Your task to perform on an android device: Go to calendar. Show me events next week Image 0: 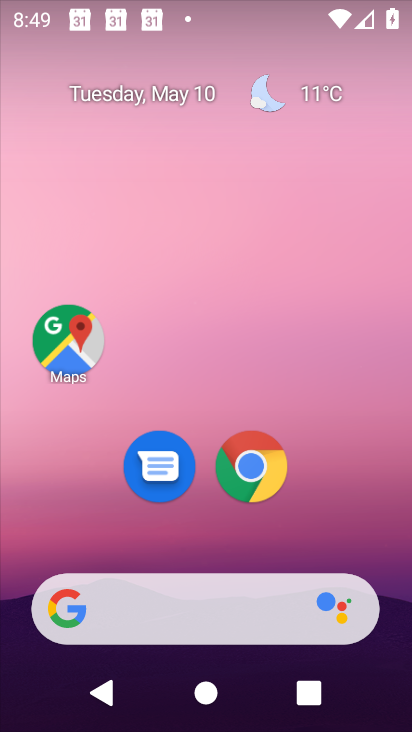
Step 0: drag from (212, 496) to (315, 64)
Your task to perform on an android device: Go to calendar. Show me events next week Image 1: 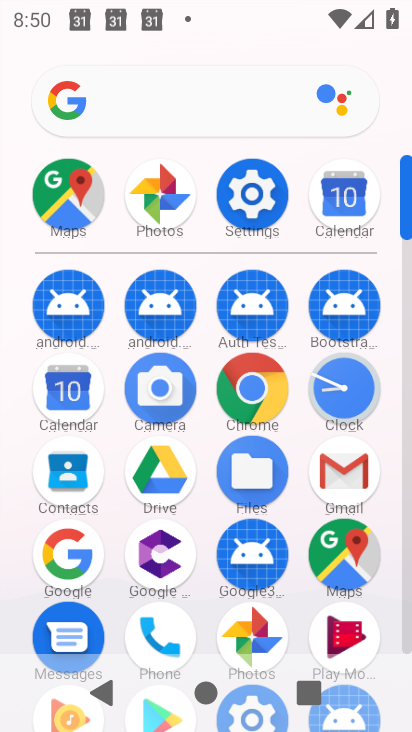
Step 1: click (71, 412)
Your task to perform on an android device: Go to calendar. Show me events next week Image 2: 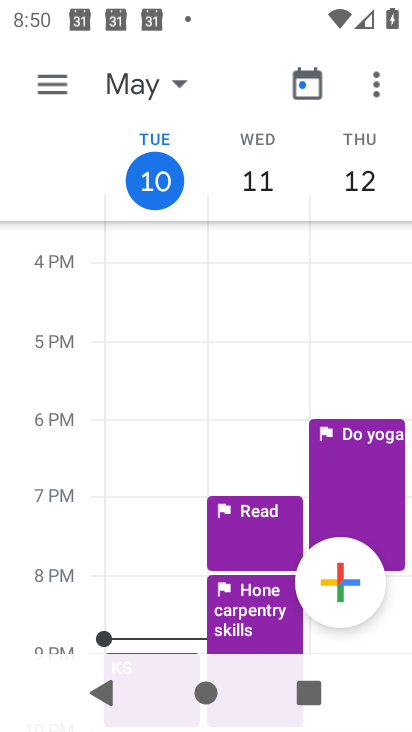
Step 2: click (39, 79)
Your task to perform on an android device: Go to calendar. Show me events next week Image 3: 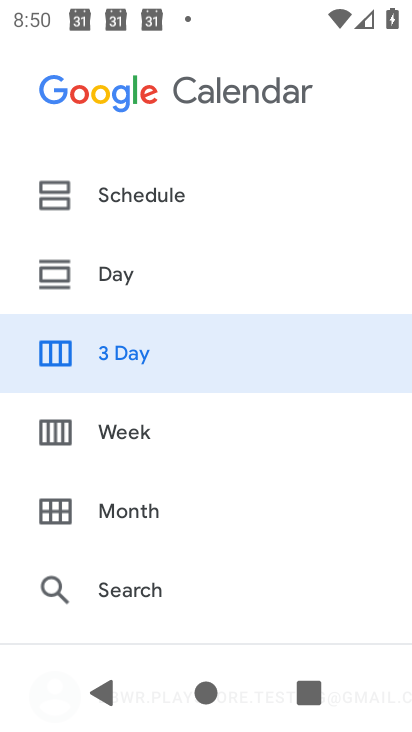
Step 3: click (156, 441)
Your task to perform on an android device: Go to calendar. Show me events next week Image 4: 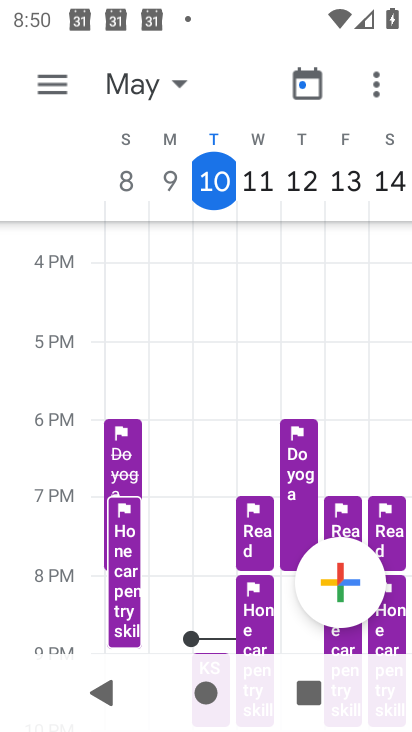
Step 4: task complete